Your task to perform on an android device: Open calendar and show me the second week of next month Image 0: 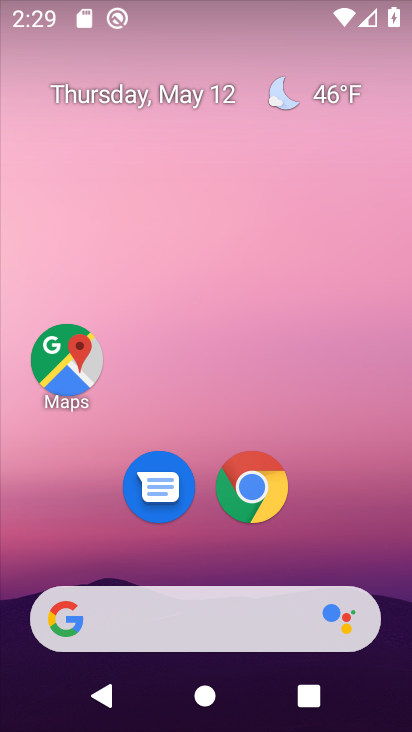
Step 0: drag from (248, 562) to (355, 63)
Your task to perform on an android device: Open calendar and show me the second week of next month Image 1: 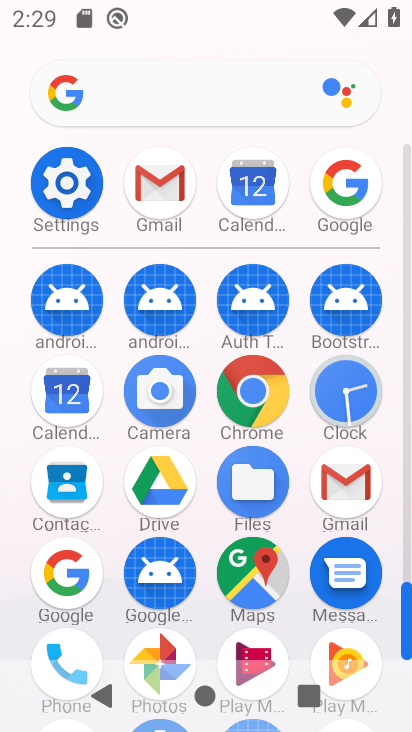
Step 1: click (62, 394)
Your task to perform on an android device: Open calendar and show me the second week of next month Image 2: 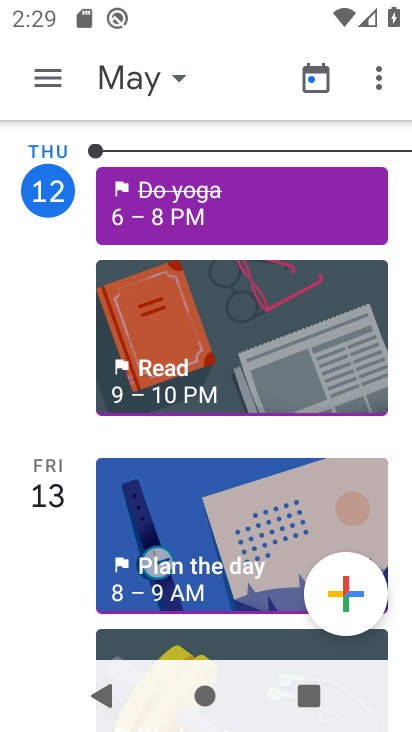
Step 2: click (128, 89)
Your task to perform on an android device: Open calendar and show me the second week of next month Image 3: 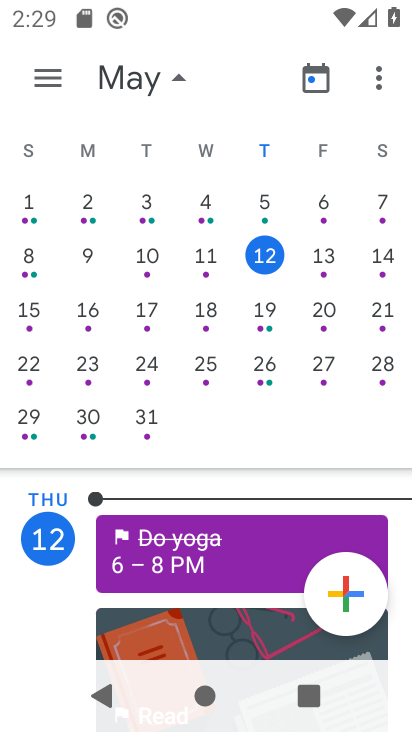
Step 3: drag from (355, 274) to (23, 273)
Your task to perform on an android device: Open calendar and show me the second week of next month Image 4: 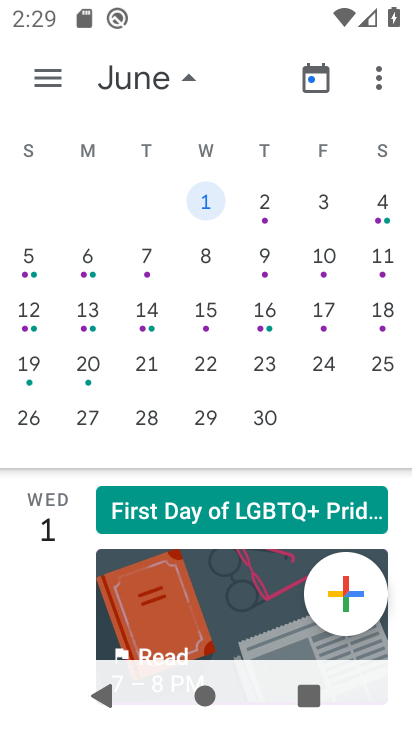
Step 4: click (32, 255)
Your task to perform on an android device: Open calendar and show me the second week of next month Image 5: 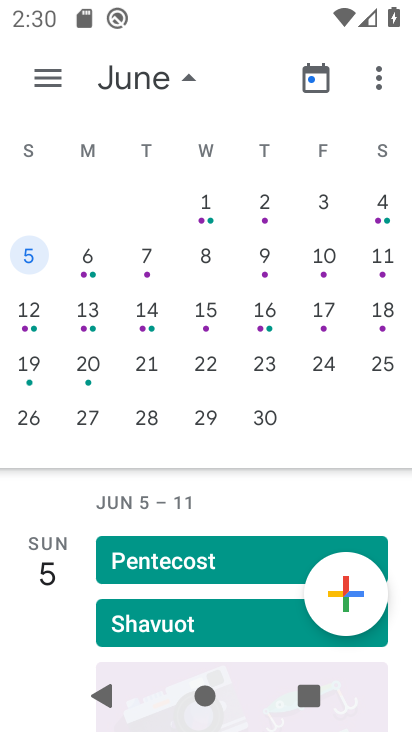
Step 5: task complete